Your task to perform on an android device: turn pop-ups on in chrome Image 0: 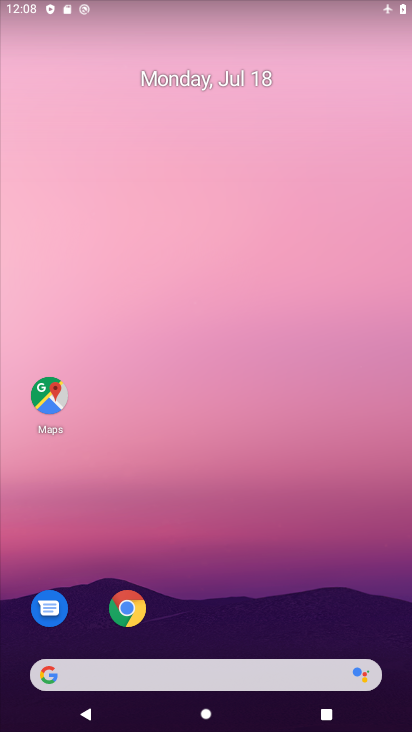
Step 0: drag from (192, 657) to (262, 128)
Your task to perform on an android device: turn pop-ups on in chrome Image 1: 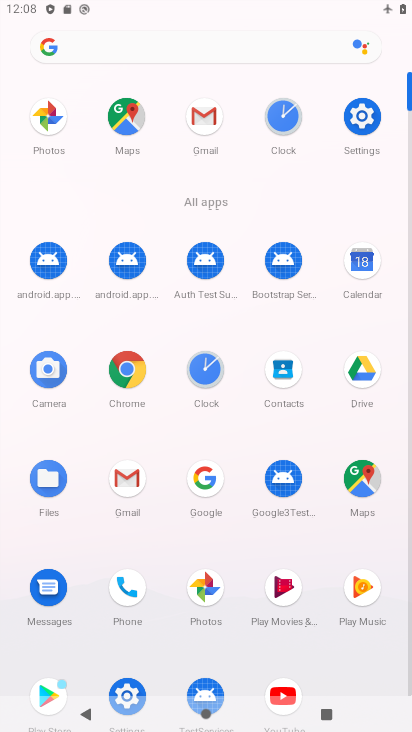
Step 1: click (120, 374)
Your task to perform on an android device: turn pop-ups on in chrome Image 2: 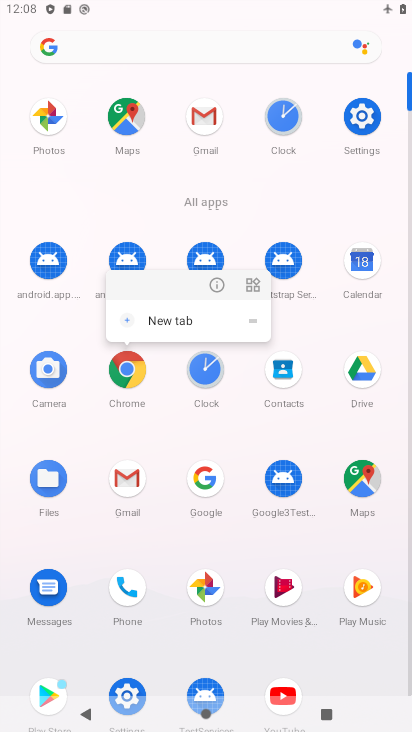
Step 2: click (121, 375)
Your task to perform on an android device: turn pop-ups on in chrome Image 3: 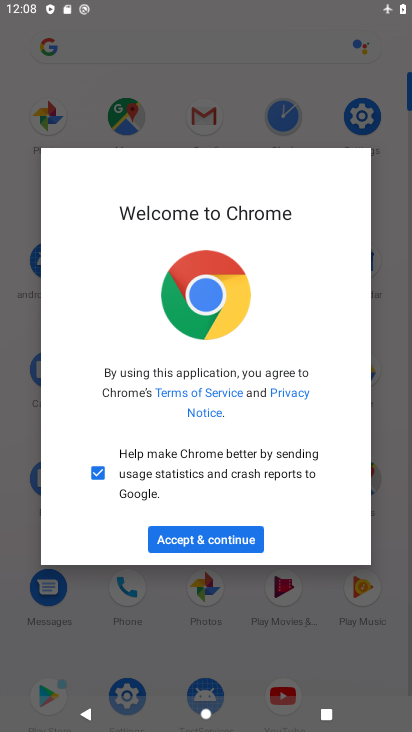
Step 3: click (223, 549)
Your task to perform on an android device: turn pop-ups on in chrome Image 4: 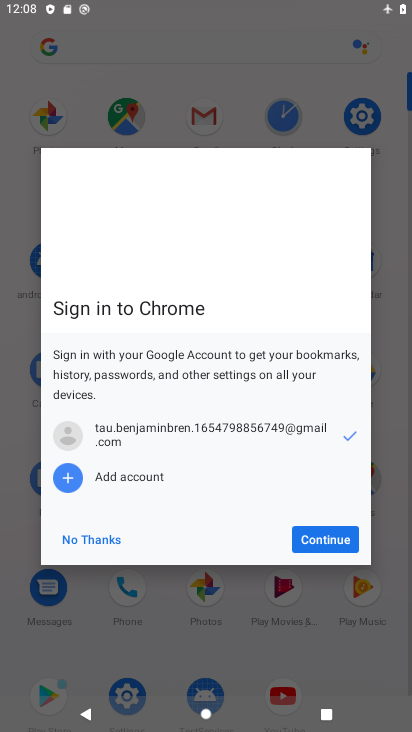
Step 4: click (333, 548)
Your task to perform on an android device: turn pop-ups on in chrome Image 5: 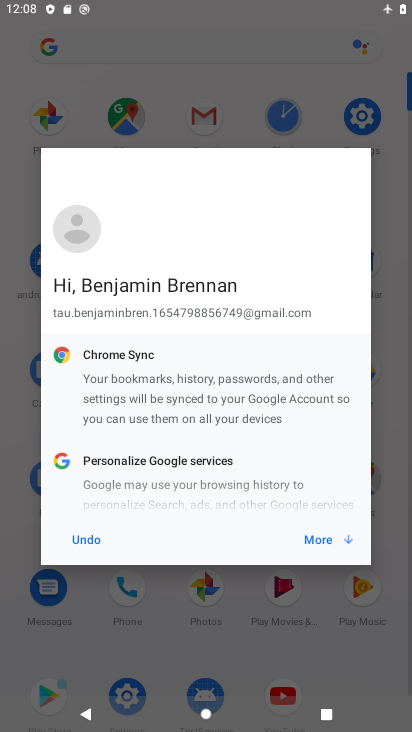
Step 5: click (332, 548)
Your task to perform on an android device: turn pop-ups on in chrome Image 6: 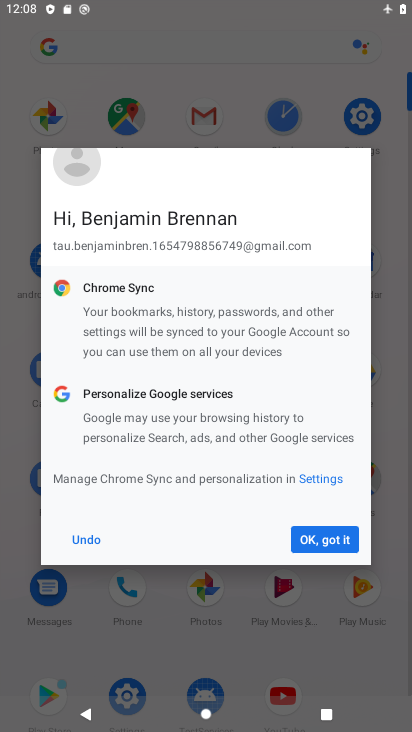
Step 6: click (332, 548)
Your task to perform on an android device: turn pop-ups on in chrome Image 7: 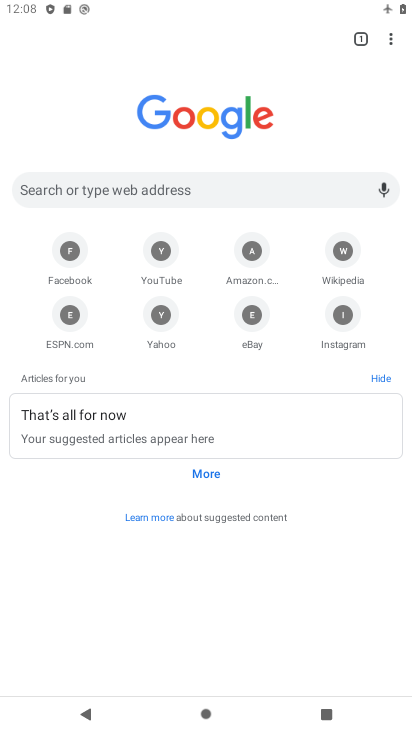
Step 7: drag from (391, 34) to (292, 309)
Your task to perform on an android device: turn pop-ups on in chrome Image 8: 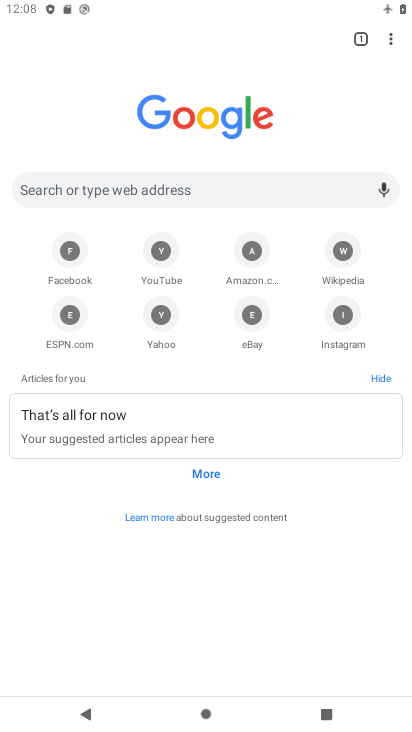
Step 8: click (390, 43)
Your task to perform on an android device: turn pop-ups on in chrome Image 9: 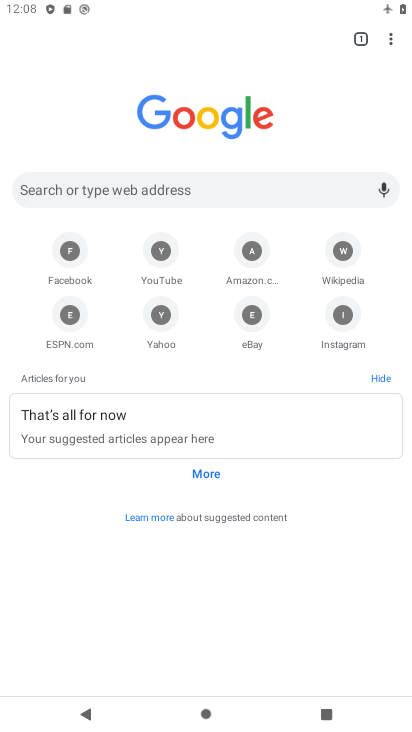
Step 9: drag from (401, 45) to (317, 324)
Your task to perform on an android device: turn pop-ups on in chrome Image 10: 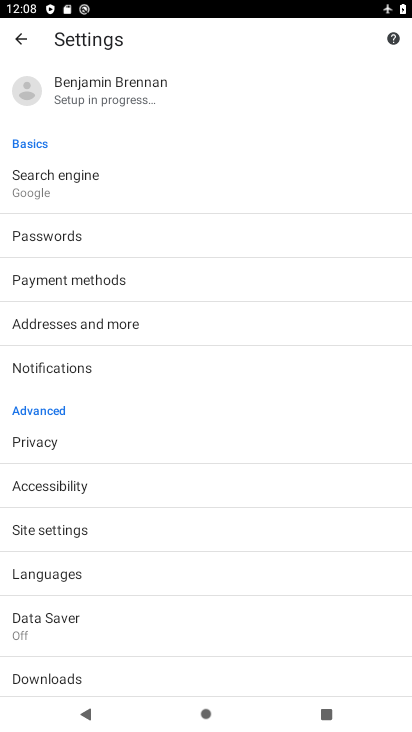
Step 10: click (117, 532)
Your task to perform on an android device: turn pop-ups on in chrome Image 11: 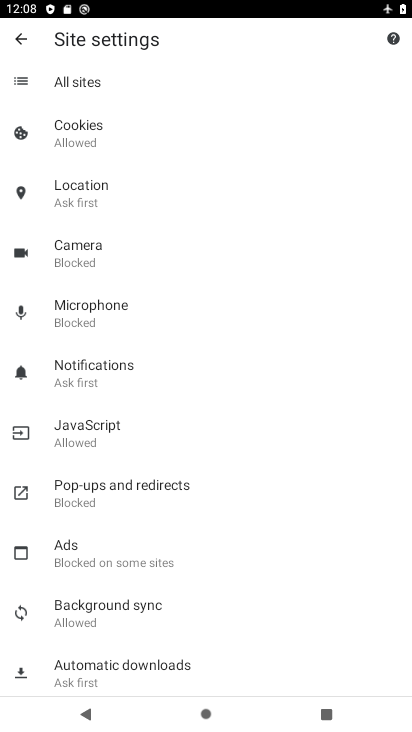
Step 11: click (152, 496)
Your task to perform on an android device: turn pop-ups on in chrome Image 12: 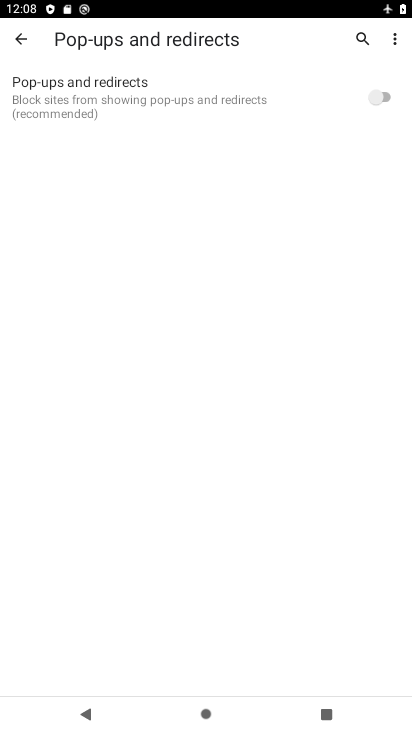
Step 12: click (388, 102)
Your task to perform on an android device: turn pop-ups on in chrome Image 13: 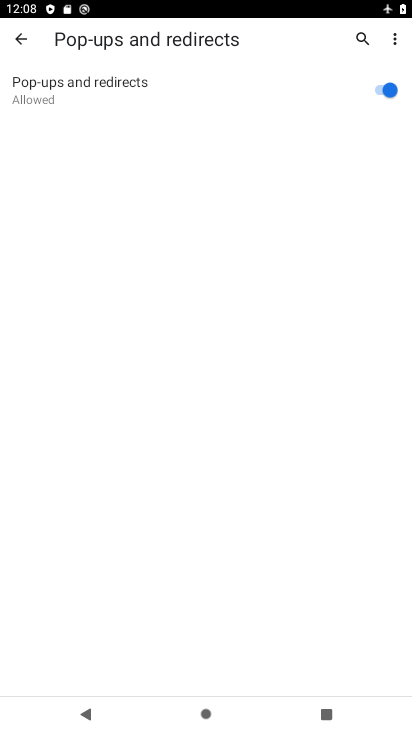
Step 13: task complete